Your task to perform on an android device: manage bookmarks in the chrome app Image 0: 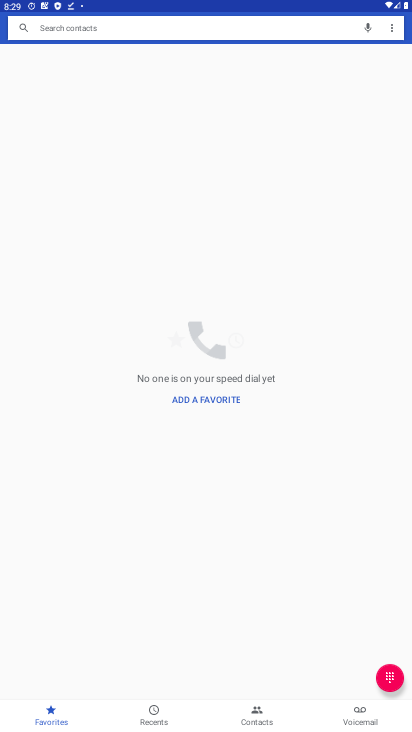
Step 0: press home button
Your task to perform on an android device: manage bookmarks in the chrome app Image 1: 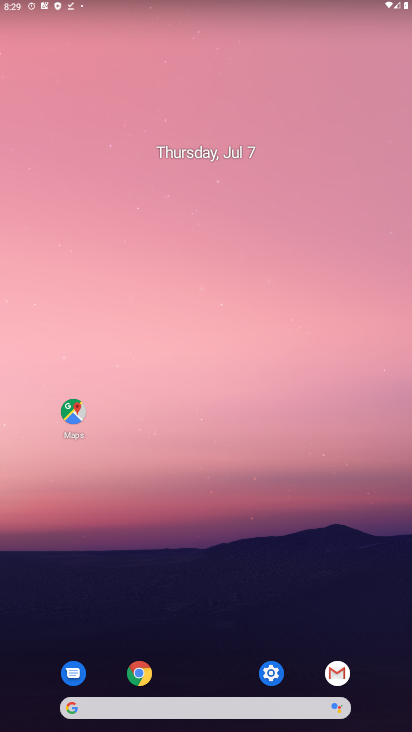
Step 1: click (150, 674)
Your task to perform on an android device: manage bookmarks in the chrome app Image 2: 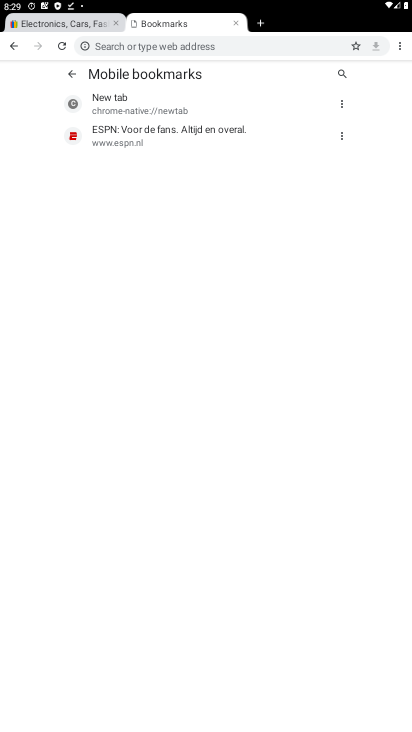
Step 2: click (402, 43)
Your task to perform on an android device: manage bookmarks in the chrome app Image 3: 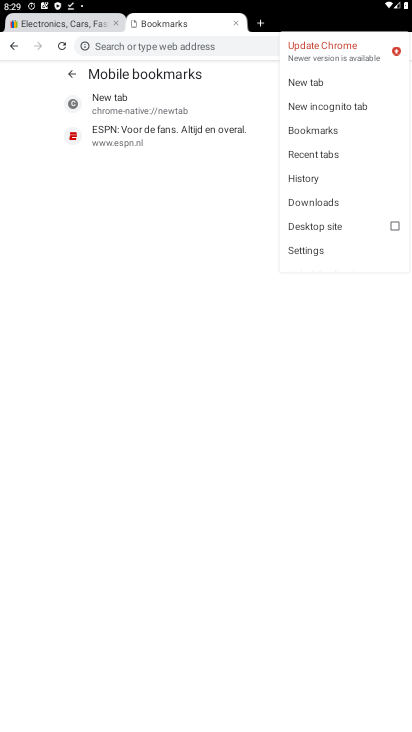
Step 3: click (308, 127)
Your task to perform on an android device: manage bookmarks in the chrome app Image 4: 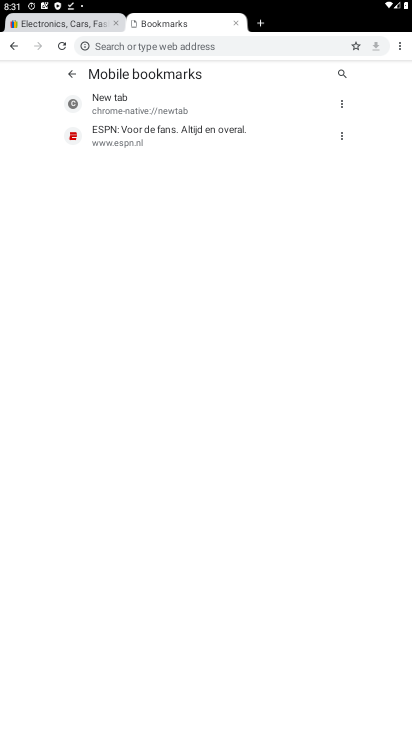
Step 4: task complete